Your task to perform on an android device: turn smart compose on in the gmail app Image 0: 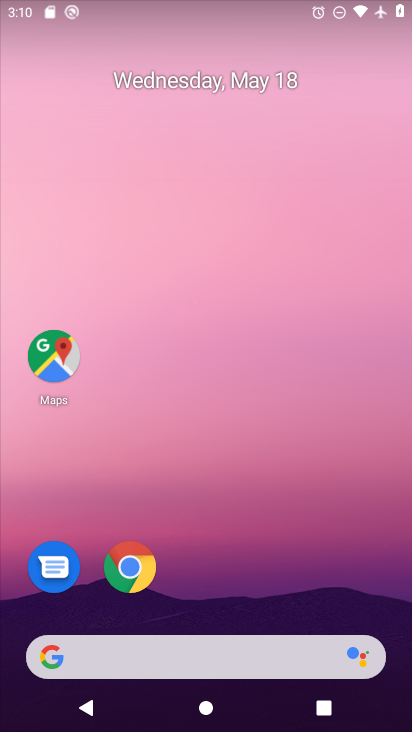
Step 0: drag from (223, 589) to (230, 211)
Your task to perform on an android device: turn smart compose on in the gmail app Image 1: 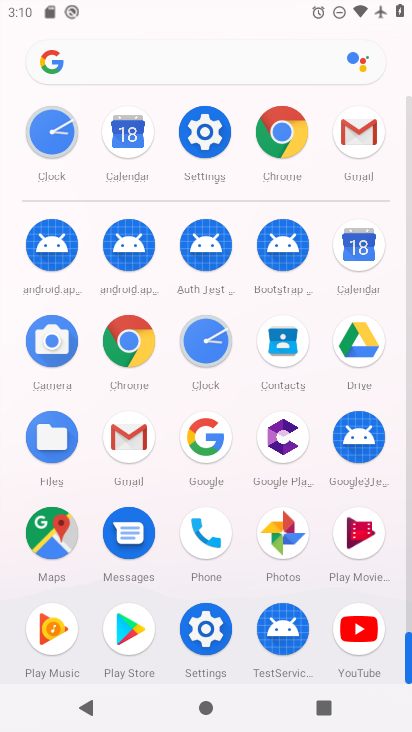
Step 1: click (117, 435)
Your task to perform on an android device: turn smart compose on in the gmail app Image 2: 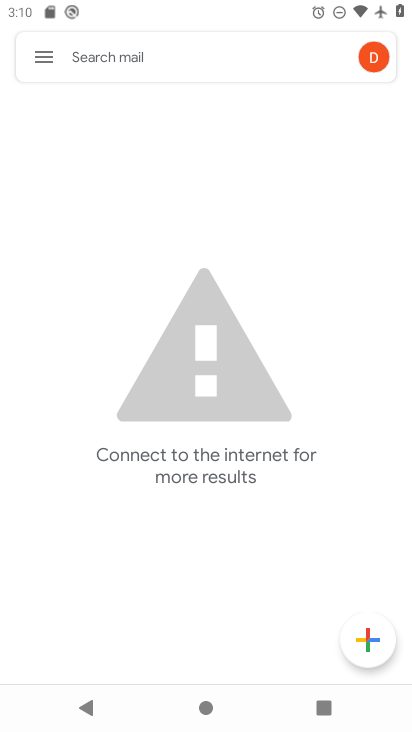
Step 2: click (24, 50)
Your task to perform on an android device: turn smart compose on in the gmail app Image 3: 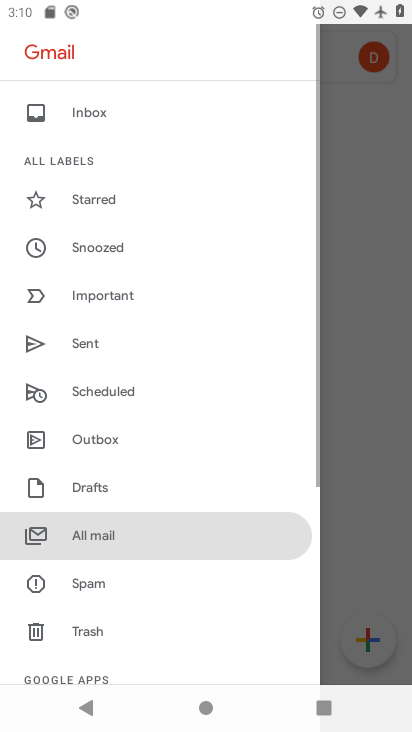
Step 3: drag from (103, 663) to (197, 76)
Your task to perform on an android device: turn smart compose on in the gmail app Image 4: 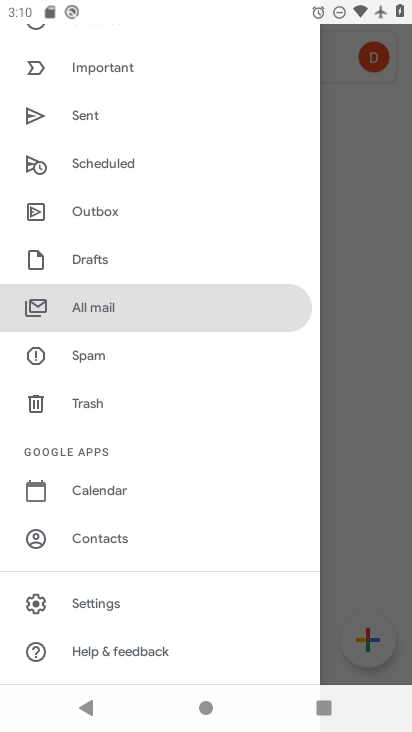
Step 4: click (95, 601)
Your task to perform on an android device: turn smart compose on in the gmail app Image 5: 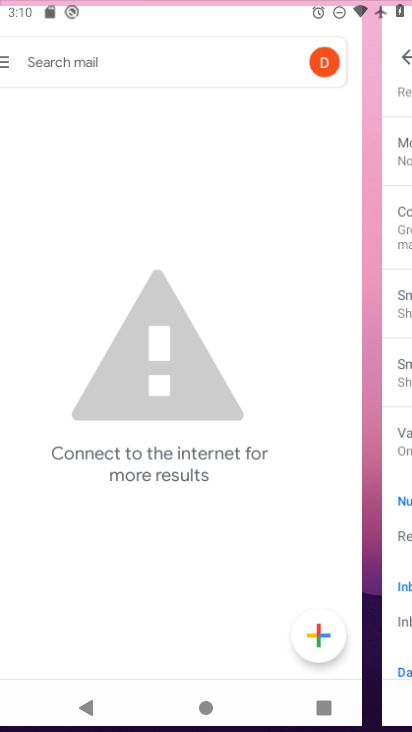
Step 5: task complete